Your task to perform on an android device: open a new tab in the chrome app Image 0: 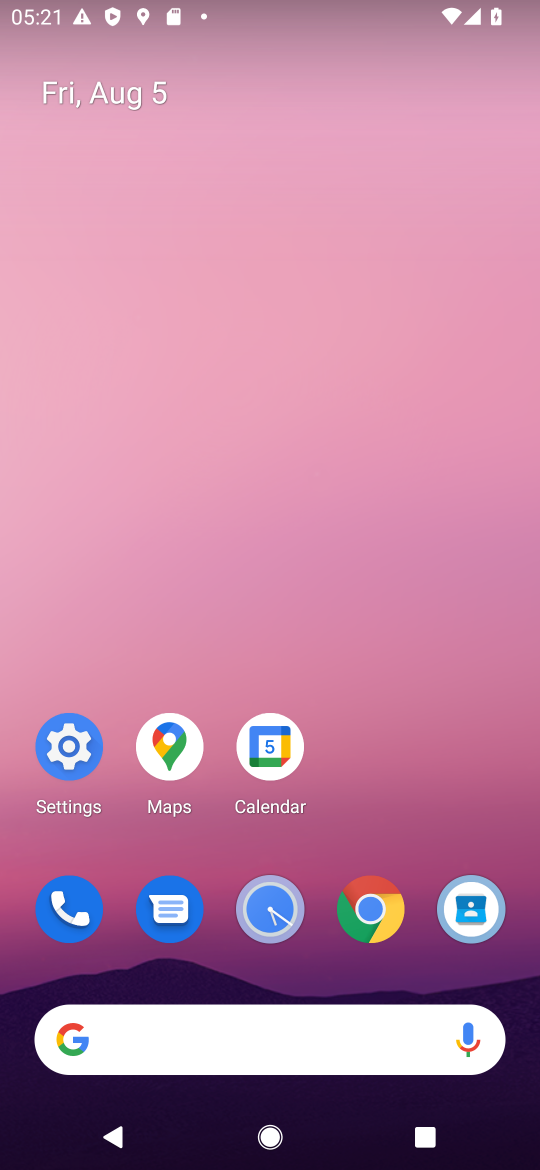
Step 0: click (366, 903)
Your task to perform on an android device: open a new tab in the chrome app Image 1: 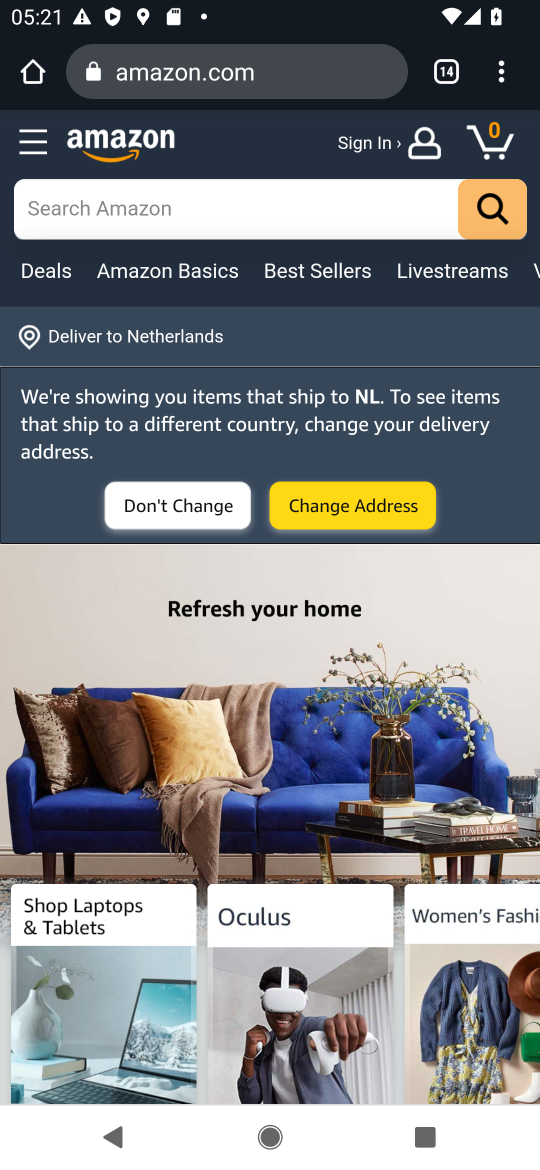
Step 1: click (507, 74)
Your task to perform on an android device: open a new tab in the chrome app Image 2: 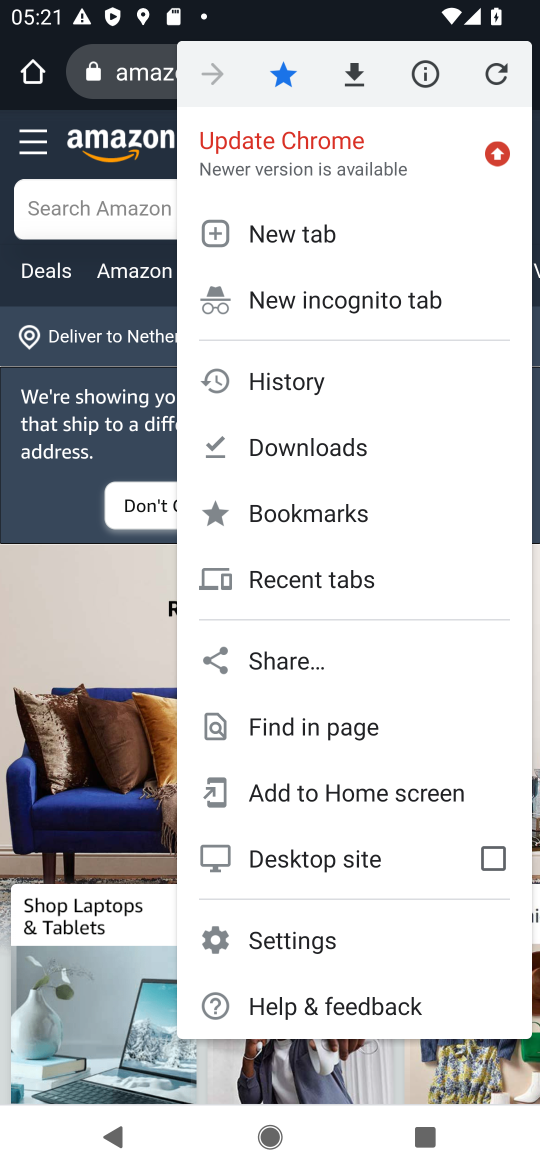
Step 2: click (284, 239)
Your task to perform on an android device: open a new tab in the chrome app Image 3: 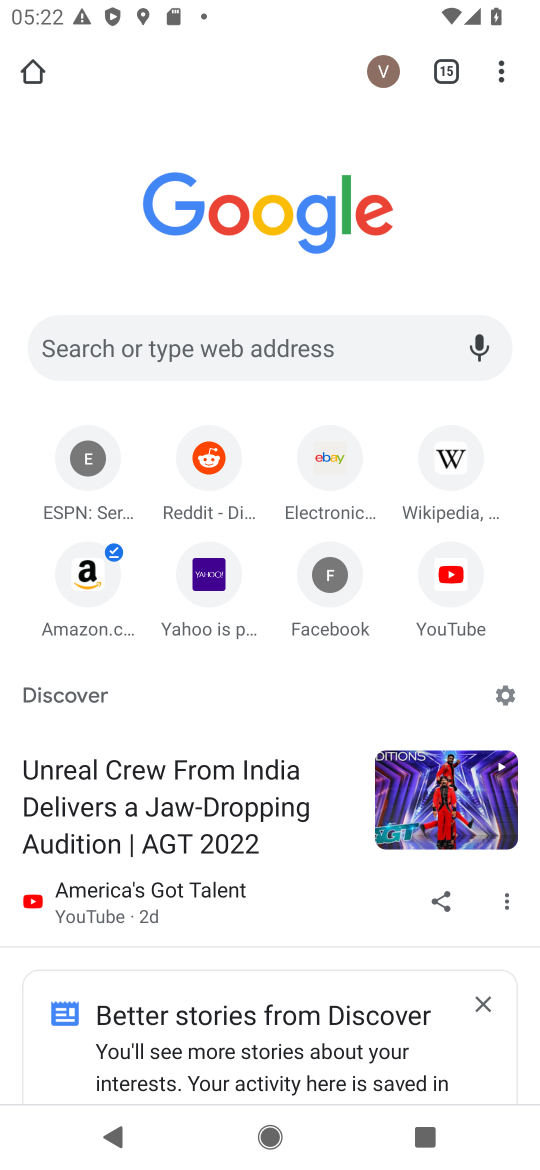
Step 3: task complete